Your task to perform on an android device: Do I have any events this weekend? Image 0: 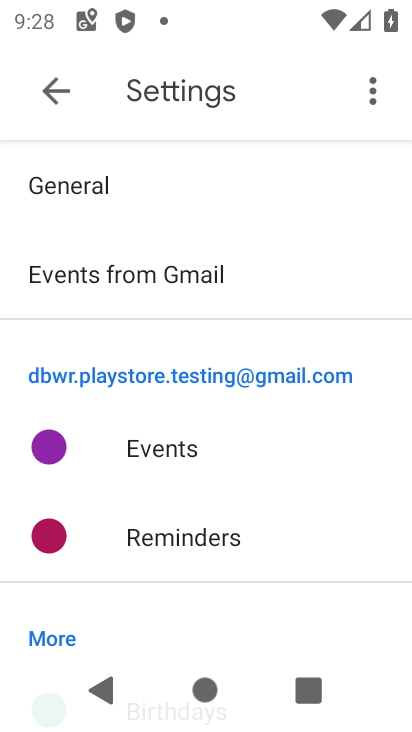
Step 0: press home button
Your task to perform on an android device: Do I have any events this weekend? Image 1: 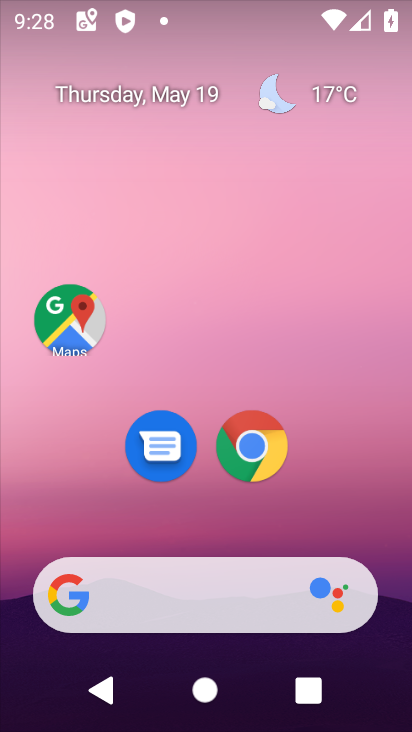
Step 1: drag from (198, 524) to (266, 0)
Your task to perform on an android device: Do I have any events this weekend? Image 2: 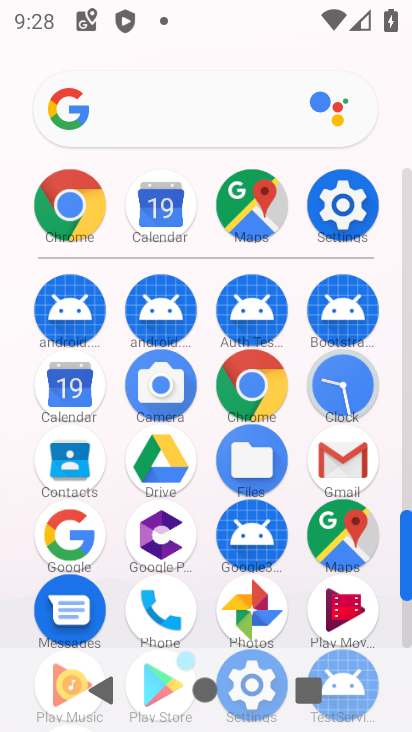
Step 2: click (76, 393)
Your task to perform on an android device: Do I have any events this weekend? Image 3: 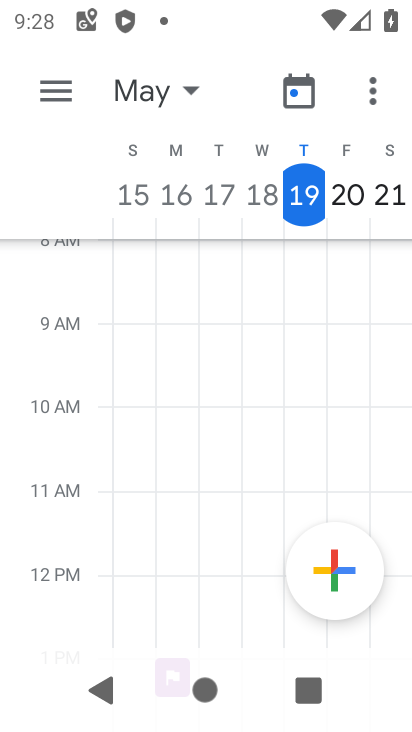
Step 3: click (69, 86)
Your task to perform on an android device: Do I have any events this weekend? Image 4: 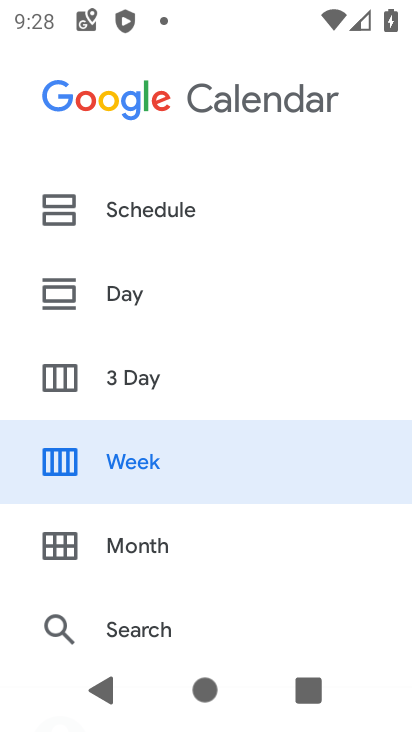
Step 4: drag from (166, 469) to (261, 11)
Your task to perform on an android device: Do I have any events this weekend? Image 5: 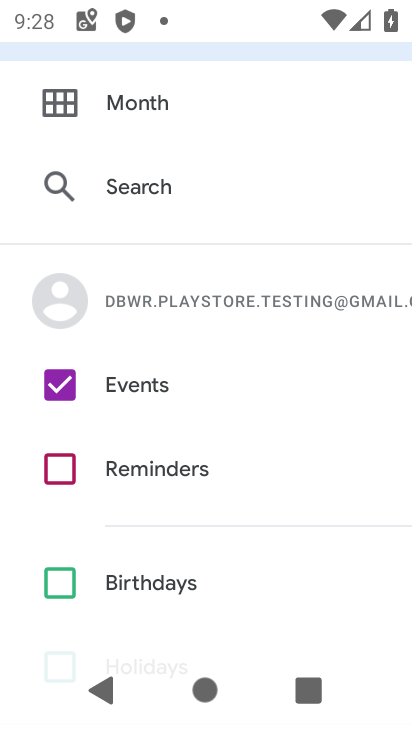
Step 5: drag from (149, 140) to (98, 483)
Your task to perform on an android device: Do I have any events this weekend? Image 6: 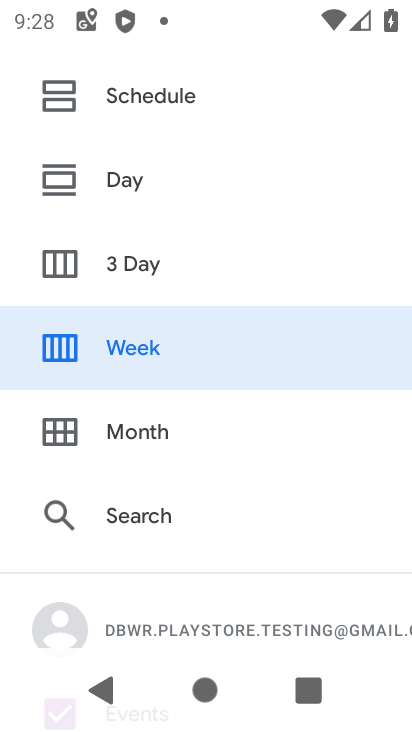
Step 6: click (150, 346)
Your task to perform on an android device: Do I have any events this weekend? Image 7: 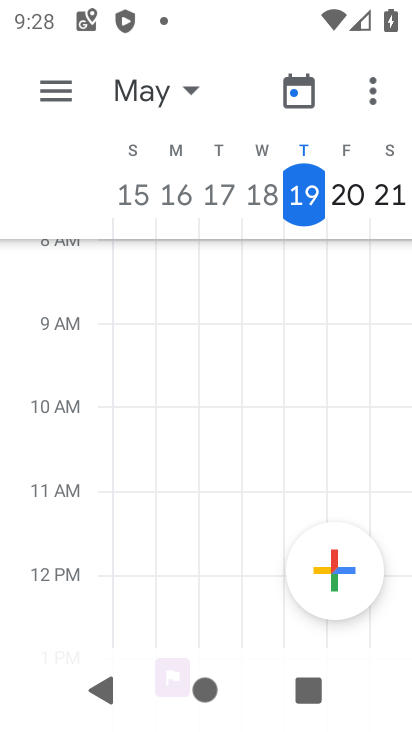
Step 7: task complete